Your task to perform on an android device: refresh tabs in the chrome app Image 0: 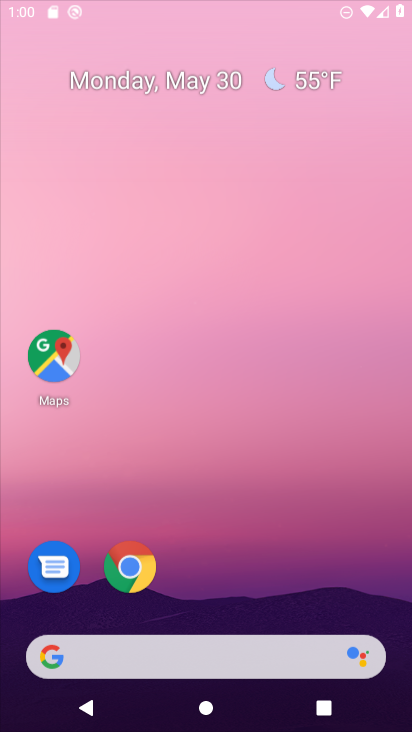
Step 0: press home button
Your task to perform on an android device: refresh tabs in the chrome app Image 1: 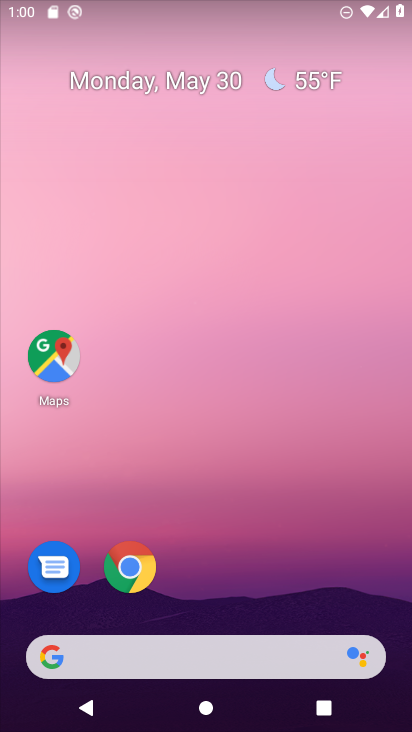
Step 1: click (127, 559)
Your task to perform on an android device: refresh tabs in the chrome app Image 2: 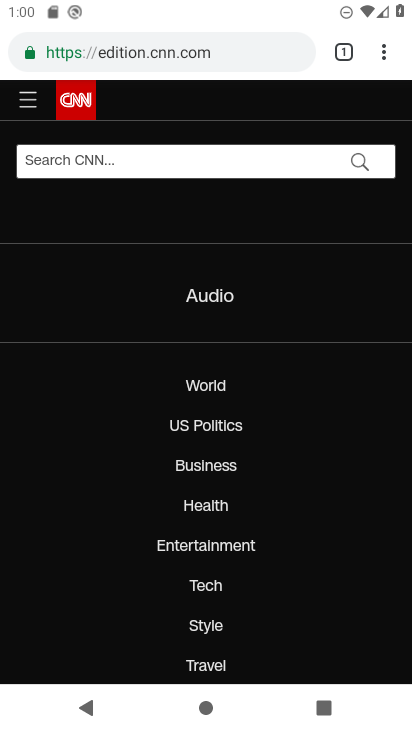
Step 2: click (381, 45)
Your task to perform on an android device: refresh tabs in the chrome app Image 3: 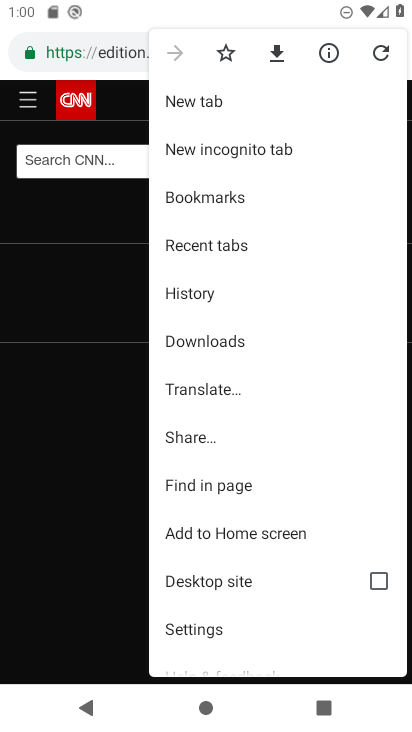
Step 3: click (260, 242)
Your task to perform on an android device: refresh tabs in the chrome app Image 4: 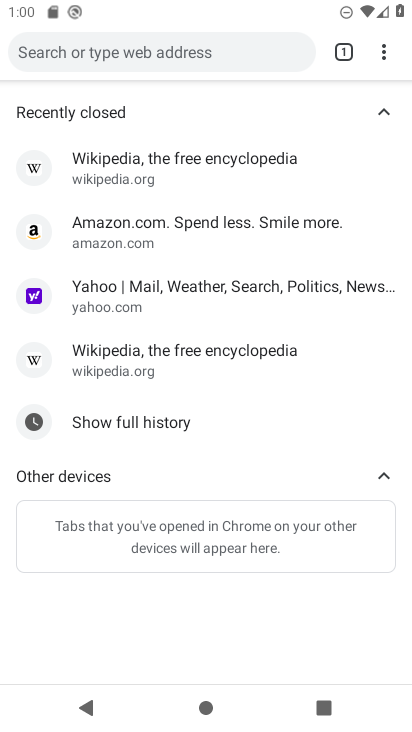
Step 4: click (348, 49)
Your task to perform on an android device: refresh tabs in the chrome app Image 5: 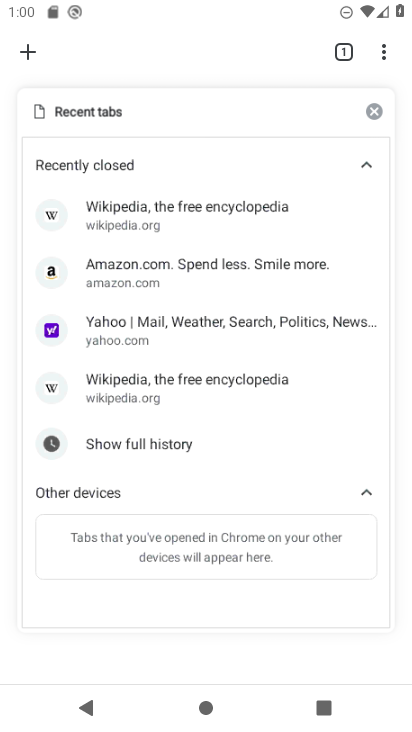
Step 5: click (381, 50)
Your task to perform on an android device: refresh tabs in the chrome app Image 6: 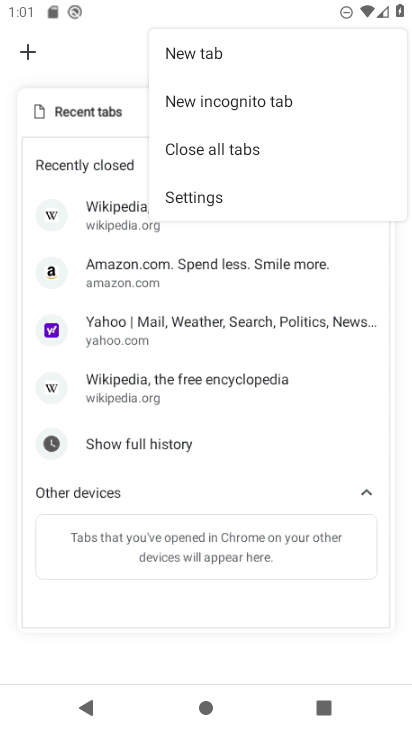
Step 6: click (163, 327)
Your task to perform on an android device: refresh tabs in the chrome app Image 7: 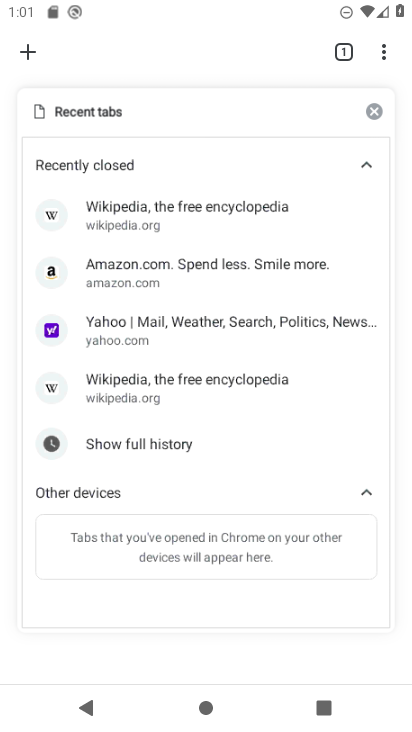
Step 7: click (156, 327)
Your task to perform on an android device: refresh tabs in the chrome app Image 8: 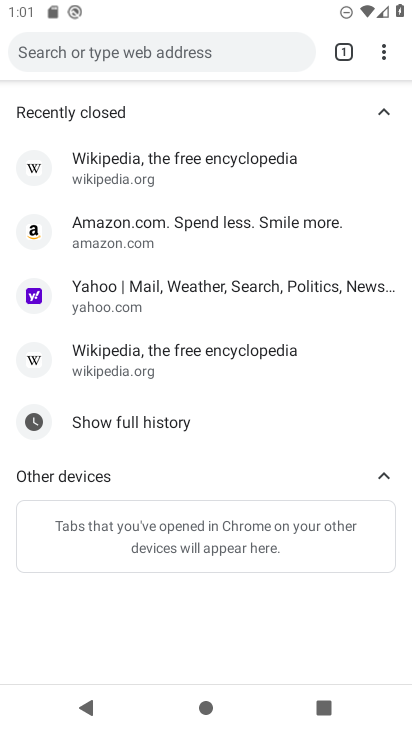
Step 8: click (382, 59)
Your task to perform on an android device: refresh tabs in the chrome app Image 9: 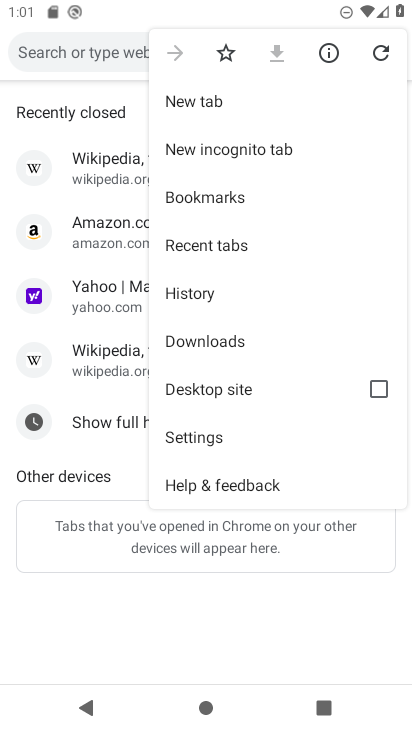
Step 9: click (380, 48)
Your task to perform on an android device: refresh tabs in the chrome app Image 10: 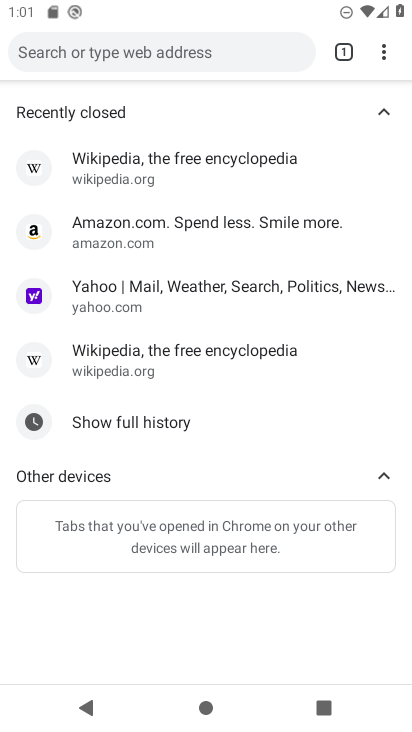
Step 10: task complete